Your task to perform on an android device: Open Maps and search for coffee Image 0: 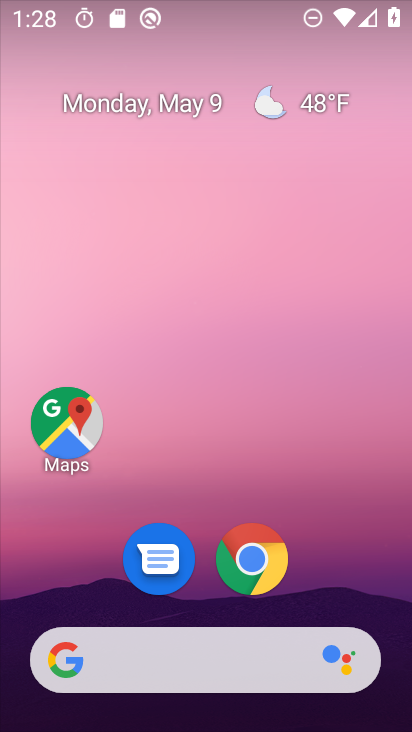
Step 0: drag from (205, 594) to (219, 234)
Your task to perform on an android device: Open Maps and search for coffee Image 1: 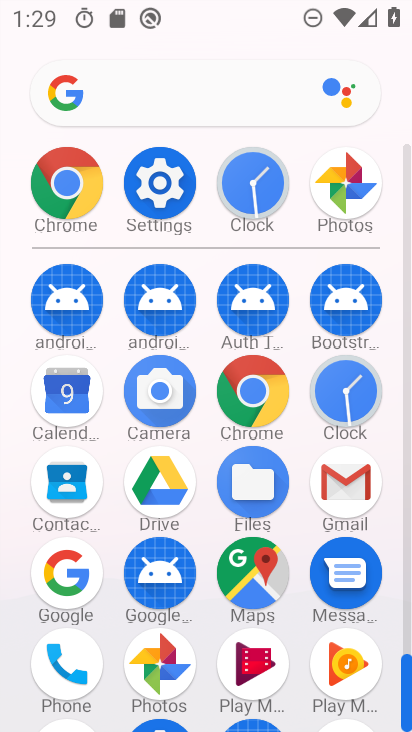
Step 1: click (251, 582)
Your task to perform on an android device: Open Maps and search for coffee Image 2: 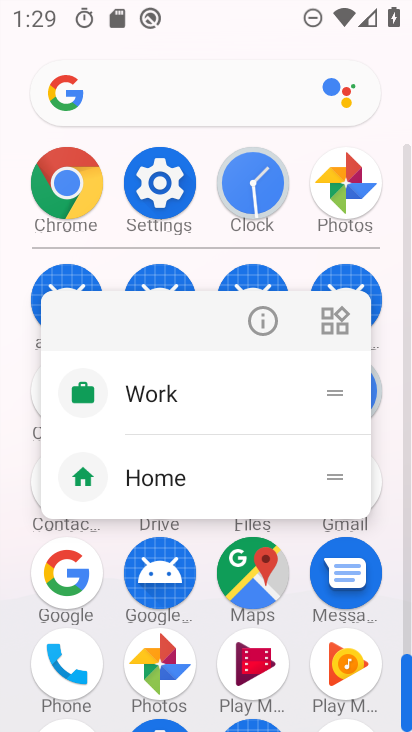
Step 2: click (266, 318)
Your task to perform on an android device: Open Maps and search for coffee Image 3: 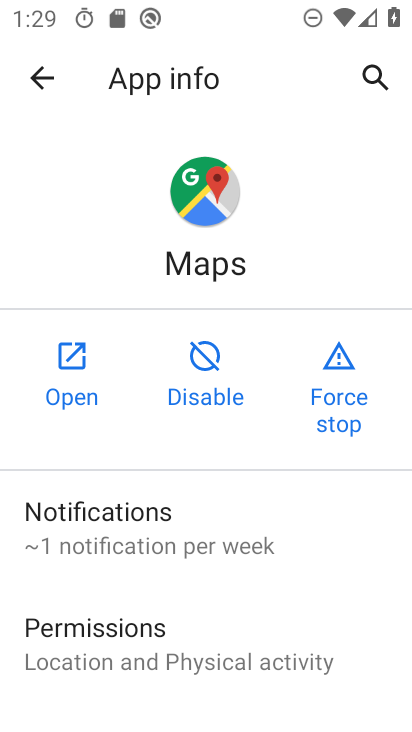
Step 3: click (70, 343)
Your task to perform on an android device: Open Maps and search for coffee Image 4: 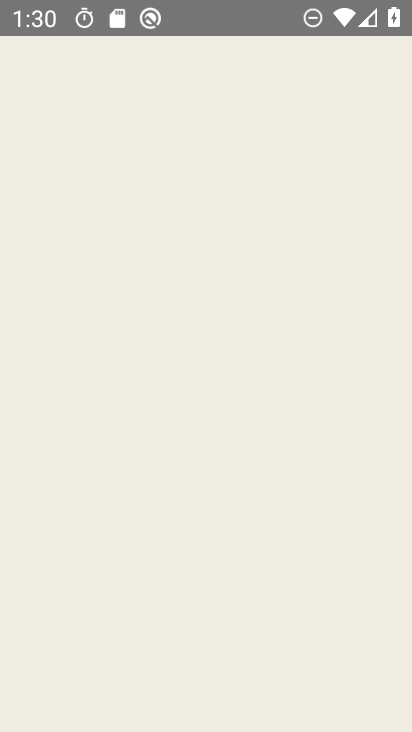
Step 4: drag from (246, 647) to (340, 182)
Your task to perform on an android device: Open Maps and search for coffee Image 5: 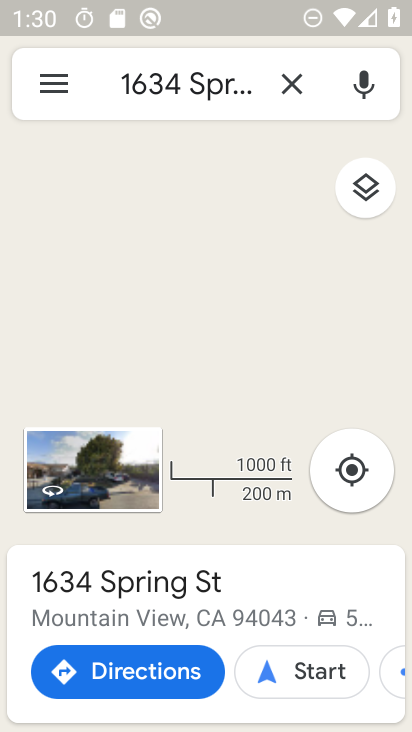
Step 5: click (288, 82)
Your task to perform on an android device: Open Maps and search for coffee Image 6: 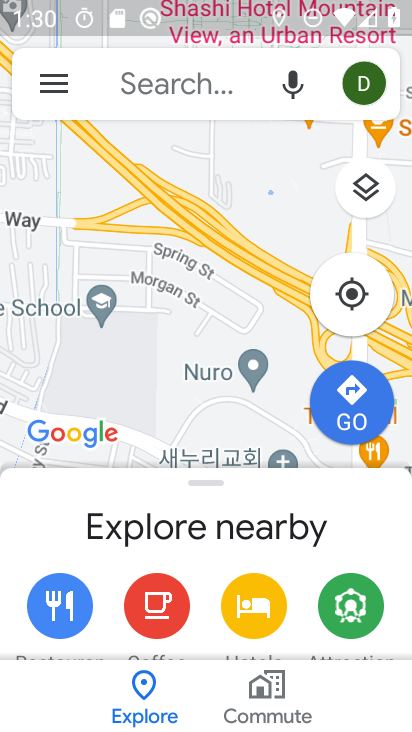
Step 6: click (161, 109)
Your task to perform on an android device: Open Maps and search for coffee Image 7: 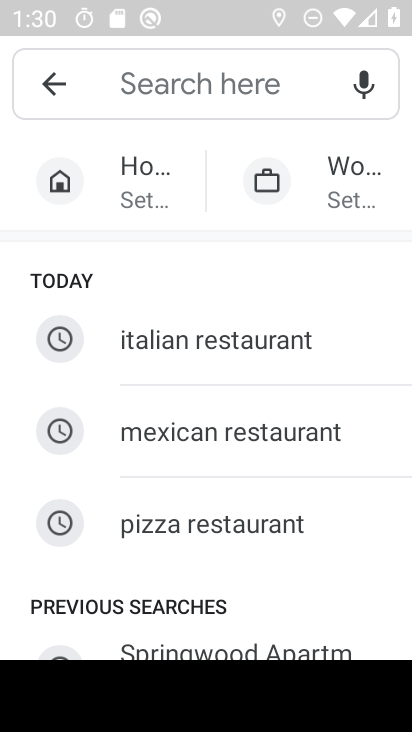
Step 7: type "coffee"
Your task to perform on an android device: Open Maps and search for coffee Image 8: 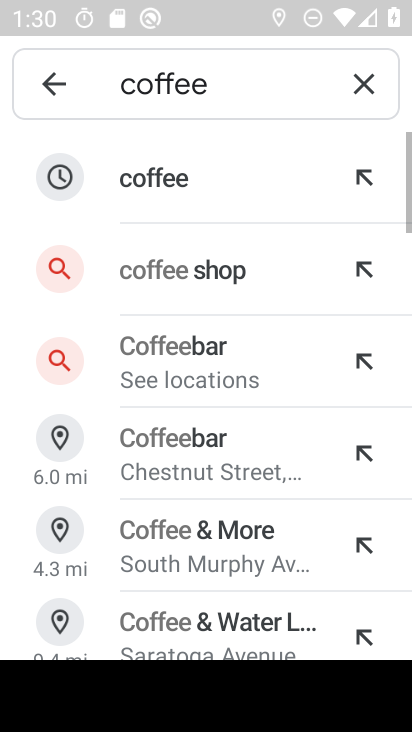
Step 8: click (163, 192)
Your task to perform on an android device: Open Maps and search for coffee Image 9: 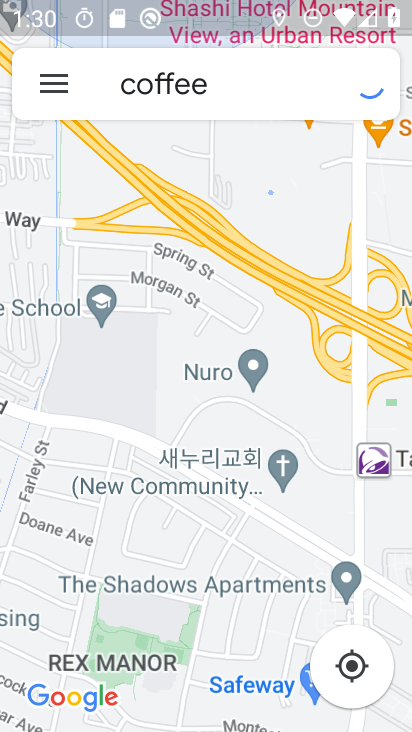
Step 9: task complete